Your task to perform on an android device: open a bookmark in the chrome app Image 0: 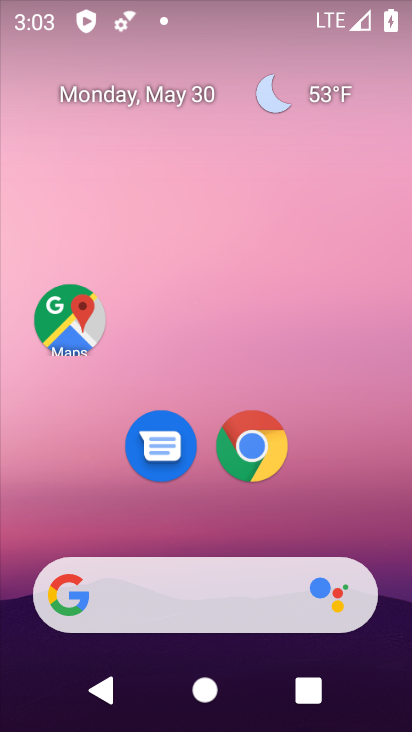
Step 0: click (256, 443)
Your task to perform on an android device: open a bookmark in the chrome app Image 1: 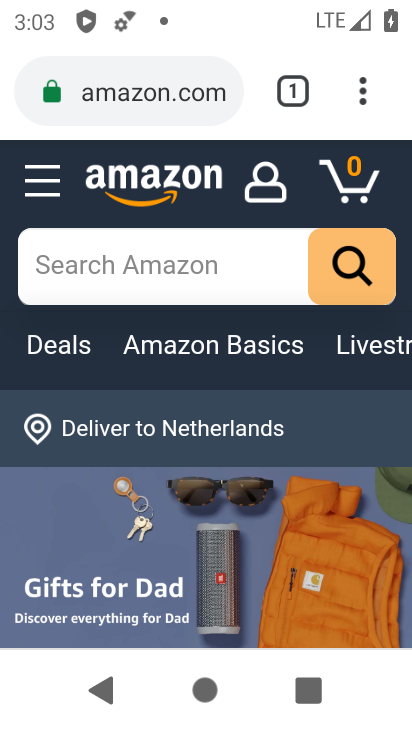
Step 1: click (366, 94)
Your task to perform on an android device: open a bookmark in the chrome app Image 2: 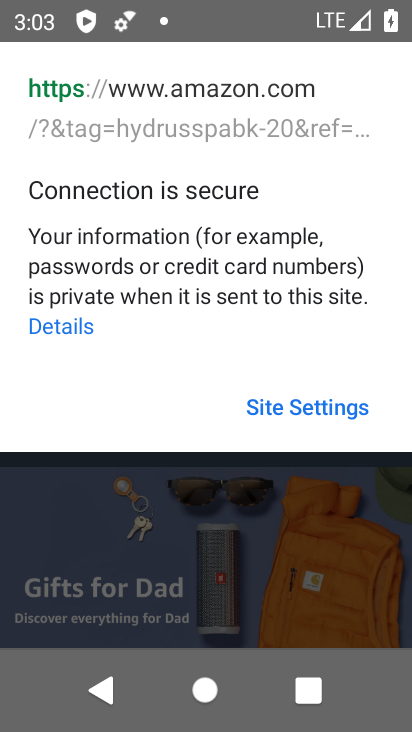
Step 2: click (187, 482)
Your task to perform on an android device: open a bookmark in the chrome app Image 3: 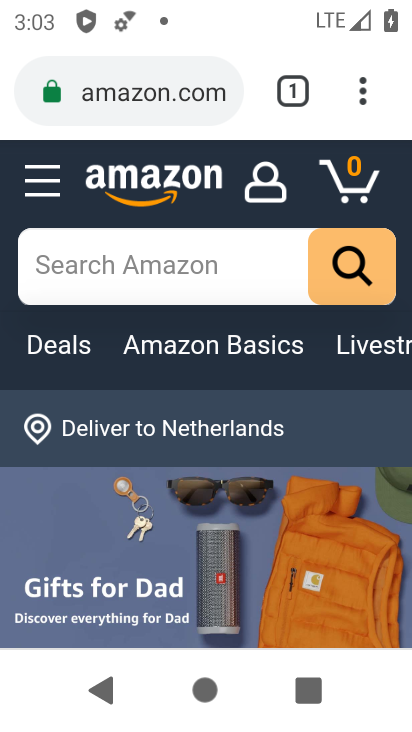
Step 3: click (365, 85)
Your task to perform on an android device: open a bookmark in the chrome app Image 4: 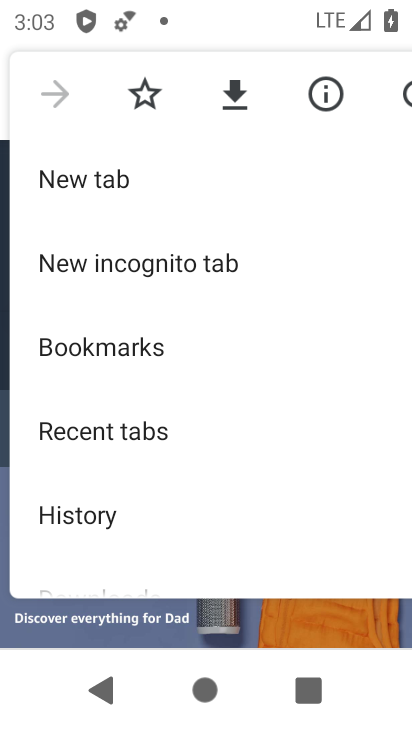
Step 4: click (126, 339)
Your task to perform on an android device: open a bookmark in the chrome app Image 5: 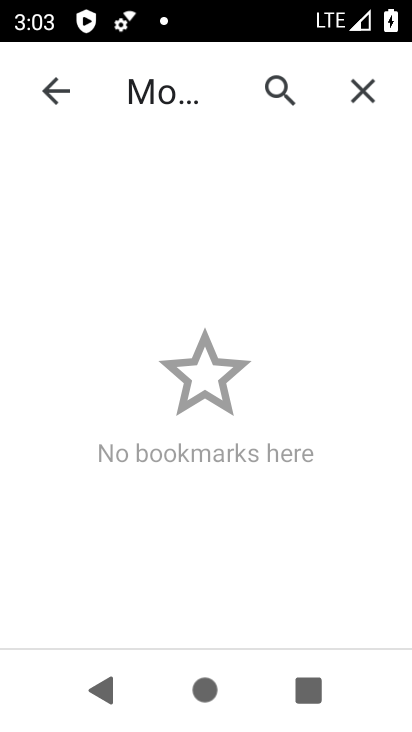
Step 5: task complete